Your task to perform on an android device: remove spam from my inbox in the gmail app Image 0: 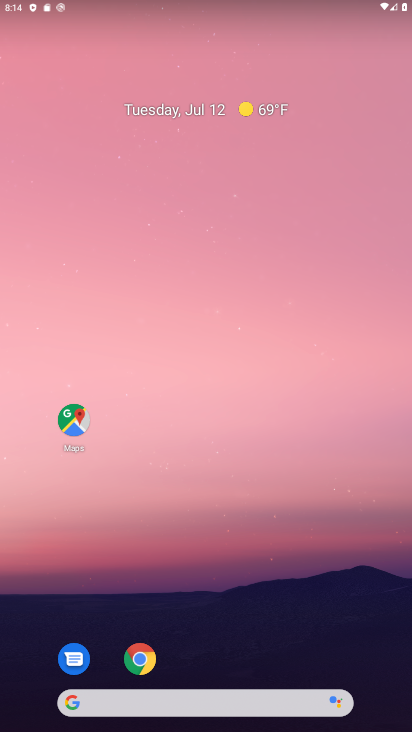
Step 0: drag from (390, 633) to (294, 130)
Your task to perform on an android device: remove spam from my inbox in the gmail app Image 1: 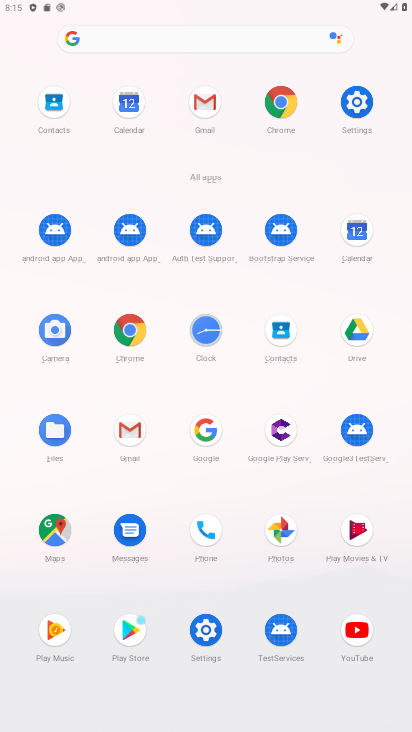
Step 1: click (211, 114)
Your task to perform on an android device: remove spam from my inbox in the gmail app Image 2: 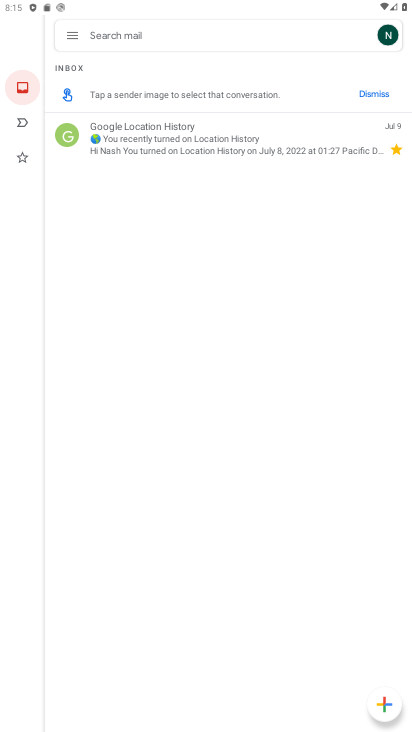
Step 2: click (69, 38)
Your task to perform on an android device: remove spam from my inbox in the gmail app Image 3: 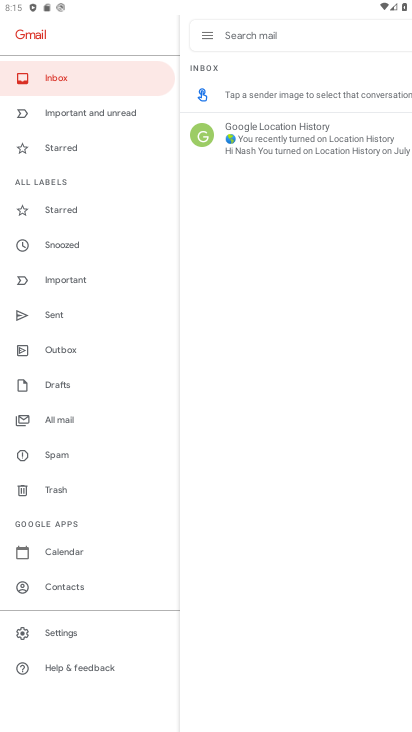
Step 3: click (56, 455)
Your task to perform on an android device: remove spam from my inbox in the gmail app Image 4: 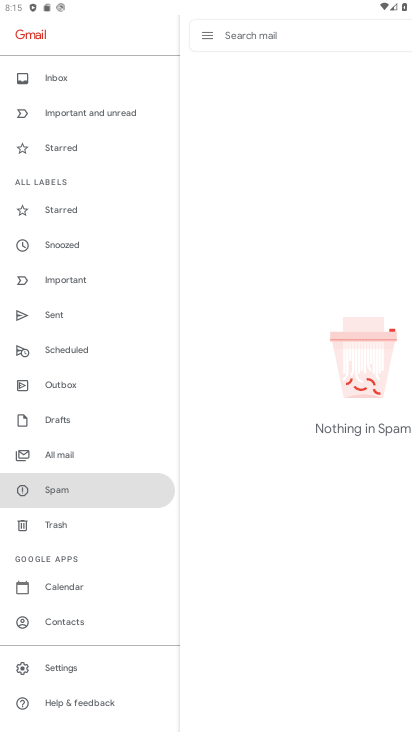
Step 4: task complete